Your task to perform on an android device: toggle priority inbox in the gmail app Image 0: 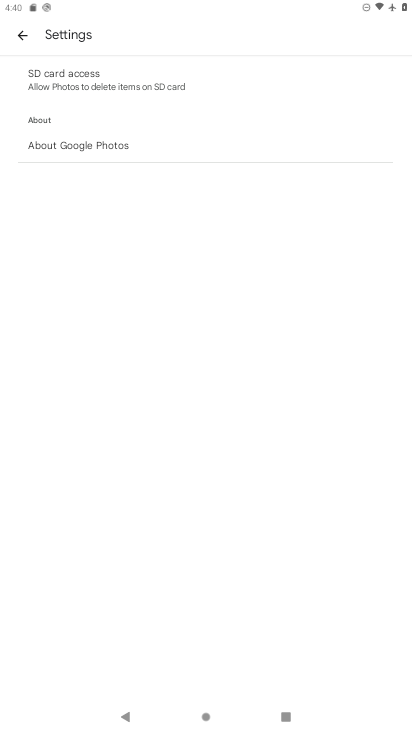
Step 0: press home button
Your task to perform on an android device: toggle priority inbox in the gmail app Image 1: 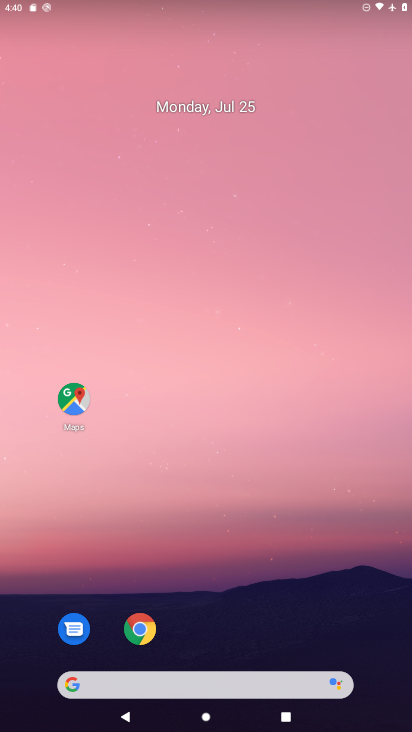
Step 1: drag from (333, 618) to (274, 71)
Your task to perform on an android device: toggle priority inbox in the gmail app Image 2: 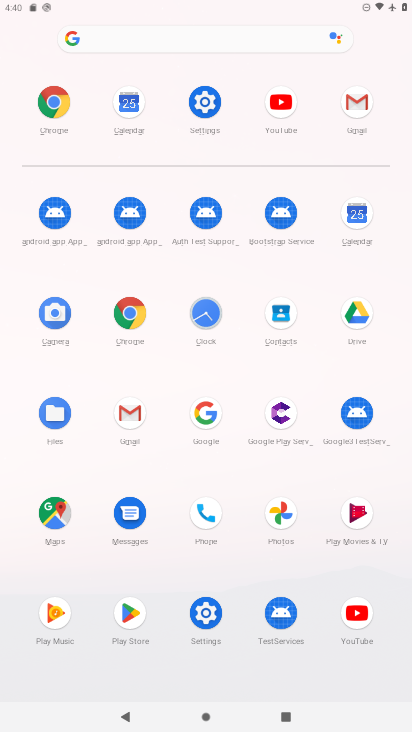
Step 2: click (130, 403)
Your task to perform on an android device: toggle priority inbox in the gmail app Image 3: 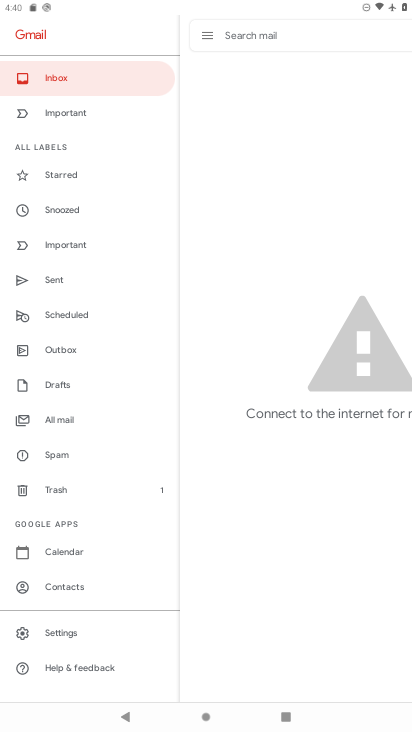
Step 3: click (60, 626)
Your task to perform on an android device: toggle priority inbox in the gmail app Image 4: 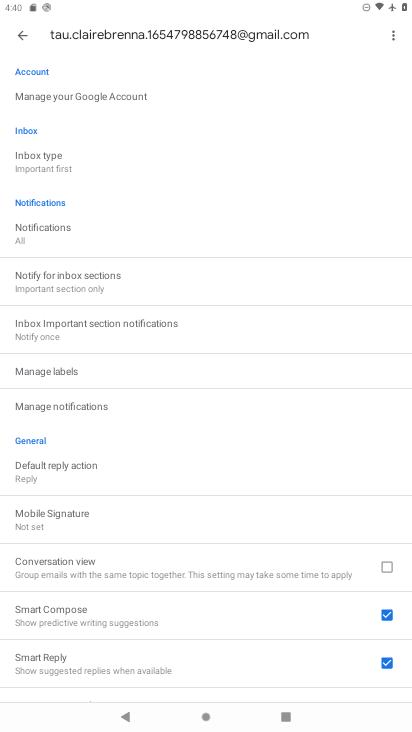
Step 4: click (36, 150)
Your task to perform on an android device: toggle priority inbox in the gmail app Image 5: 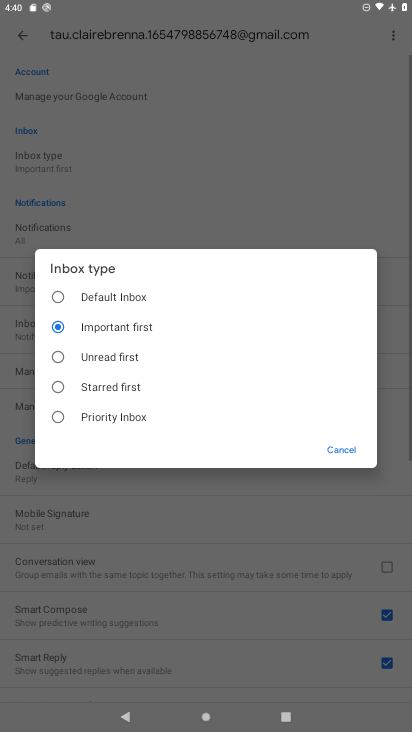
Step 5: click (53, 421)
Your task to perform on an android device: toggle priority inbox in the gmail app Image 6: 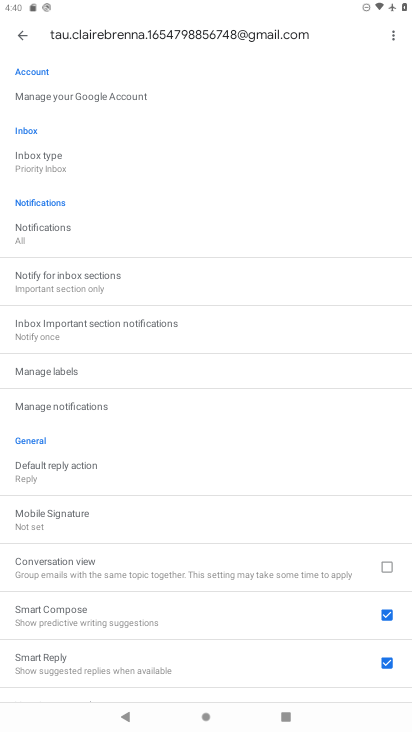
Step 6: task complete